Your task to perform on an android device: turn off javascript in the chrome app Image 0: 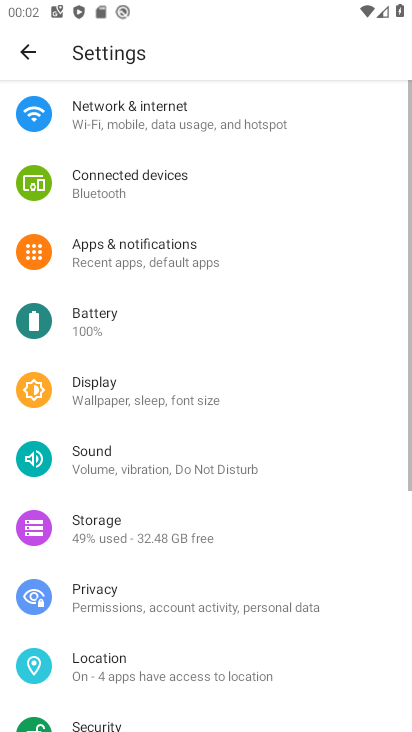
Step 0: press home button
Your task to perform on an android device: turn off javascript in the chrome app Image 1: 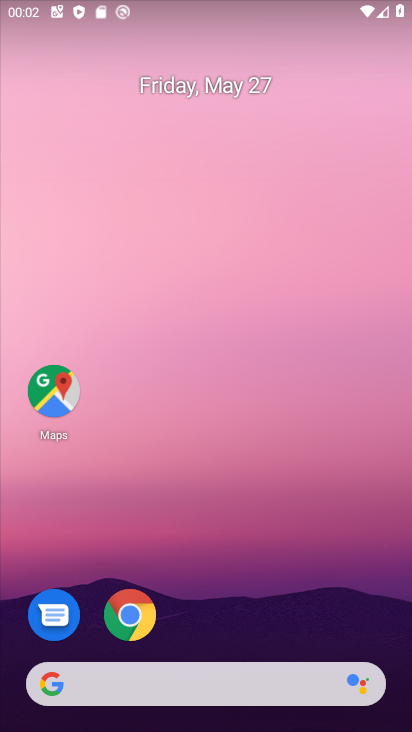
Step 1: click (130, 633)
Your task to perform on an android device: turn off javascript in the chrome app Image 2: 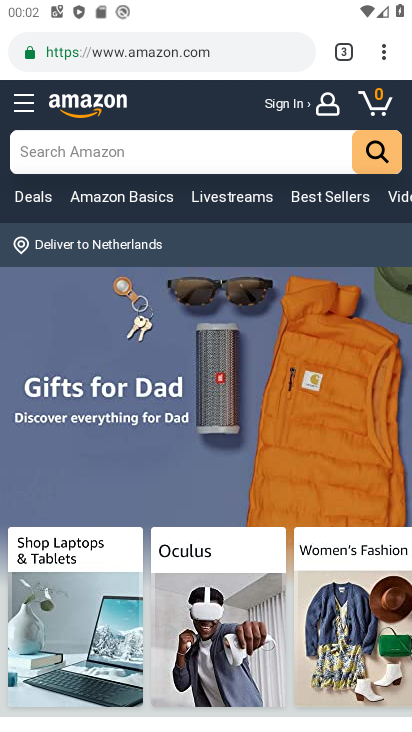
Step 2: drag from (384, 59) to (251, 646)
Your task to perform on an android device: turn off javascript in the chrome app Image 3: 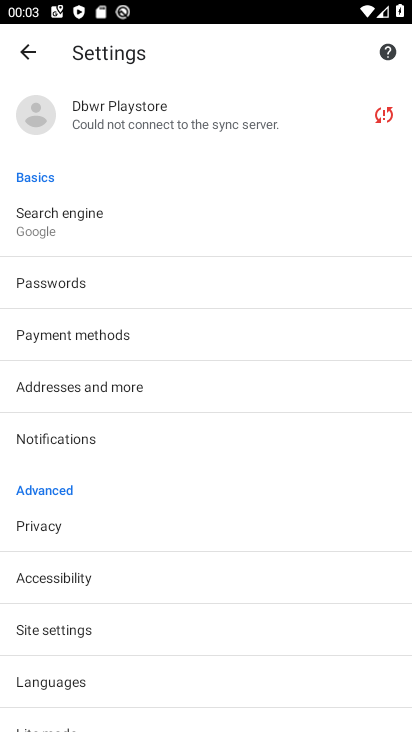
Step 3: click (79, 638)
Your task to perform on an android device: turn off javascript in the chrome app Image 4: 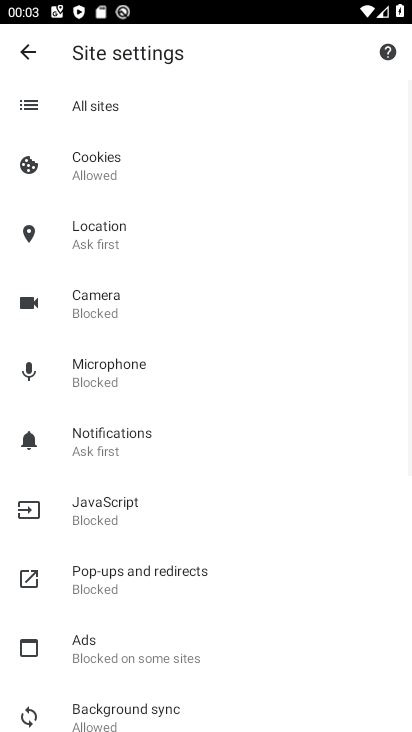
Step 4: click (113, 492)
Your task to perform on an android device: turn off javascript in the chrome app Image 5: 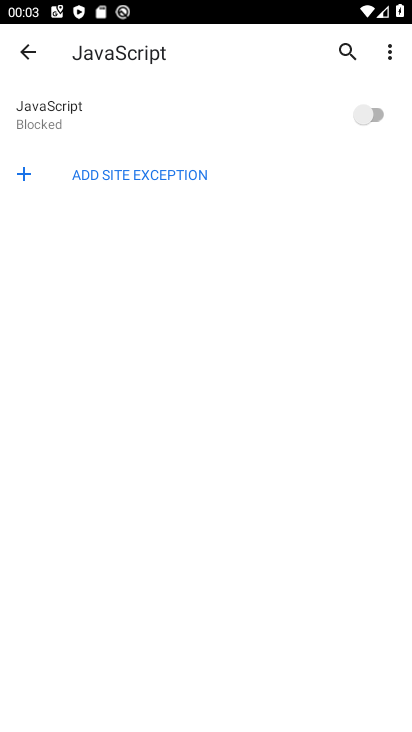
Step 5: task complete